Your task to perform on an android device: clear history in the chrome app Image 0: 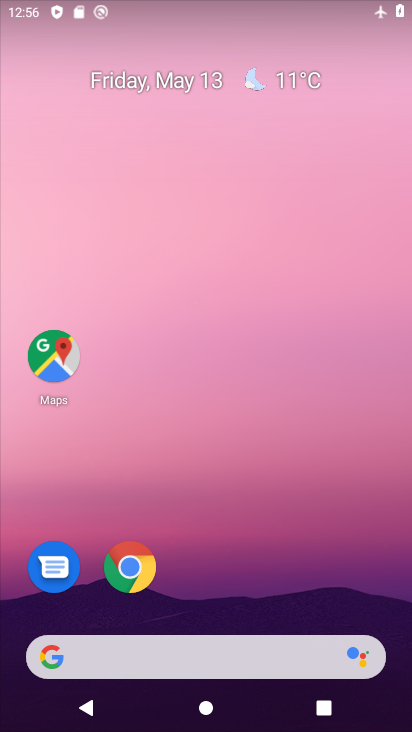
Step 0: press home button
Your task to perform on an android device: clear history in the chrome app Image 1: 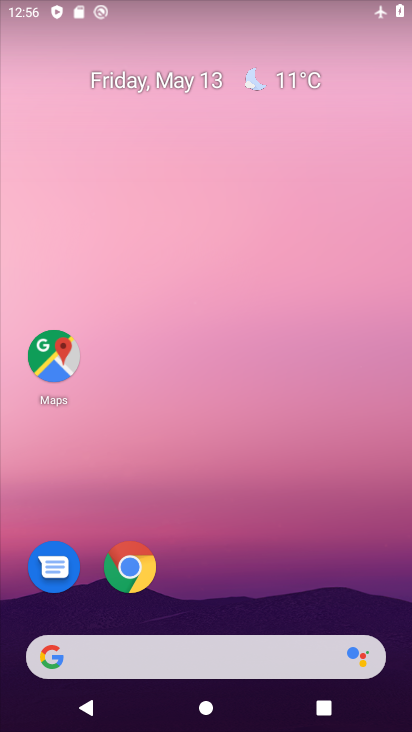
Step 1: click (130, 566)
Your task to perform on an android device: clear history in the chrome app Image 2: 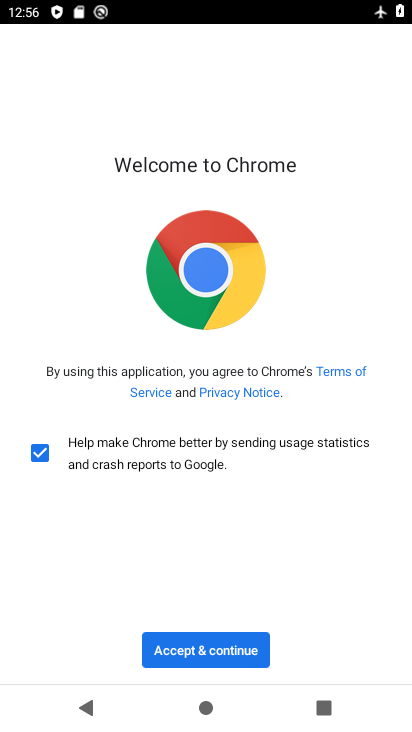
Step 2: click (201, 643)
Your task to perform on an android device: clear history in the chrome app Image 3: 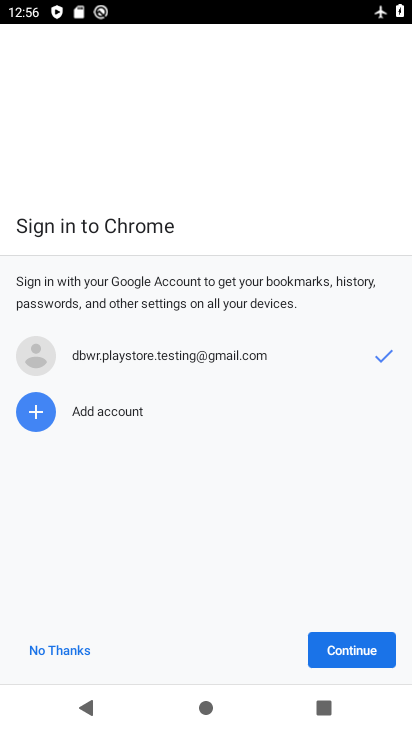
Step 3: click (362, 648)
Your task to perform on an android device: clear history in the chrome app Image 4: 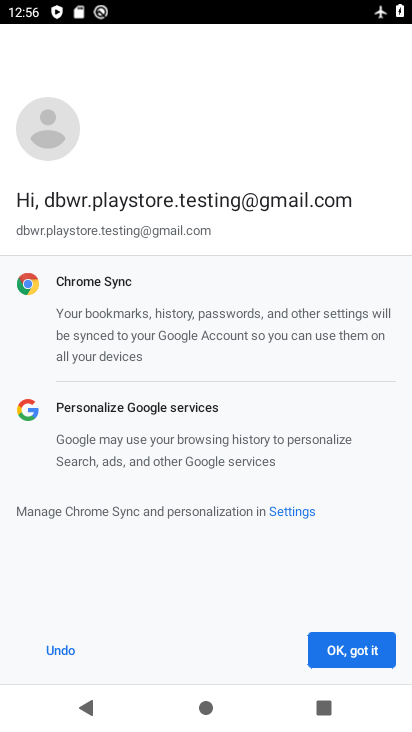
Step 4: click (352, 652)
Your task to perform on an android device: clear history in the chrome app Image 5: 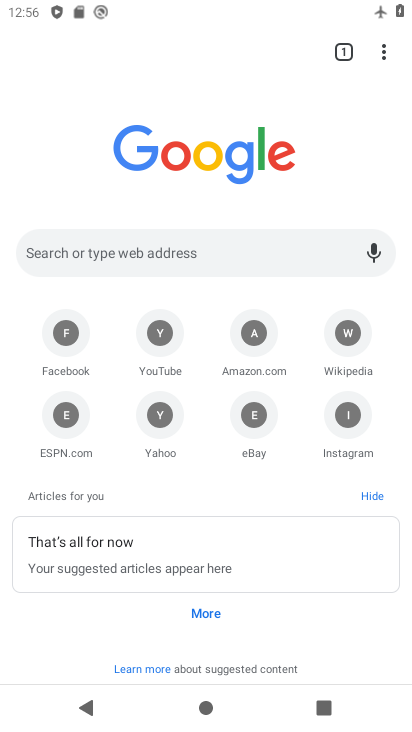
Step 5: click (381, 41)
Your task to perform on an android device: clear history in the chrome app Image 6: 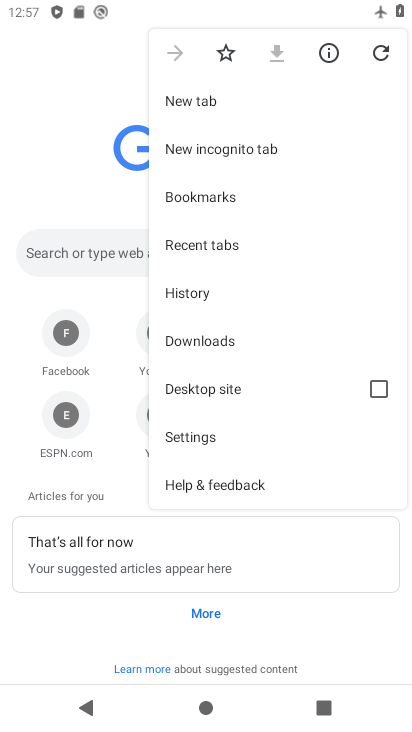
Step 6: click (216, 293)
Your task to perform on an android device: clear history in the chrome app Image 7: 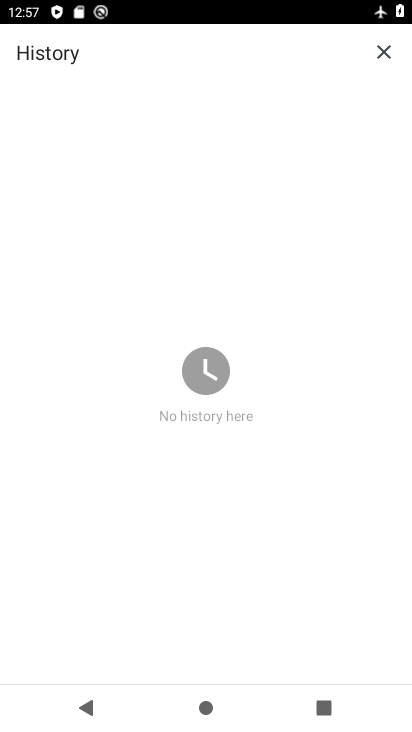
Step 7: task complete